Your task to perform on an android device: open app "Facebook Messenger" (install if not already installed) and enter user name: "divorce@inbox.com" and password: "caviar" Image 0: 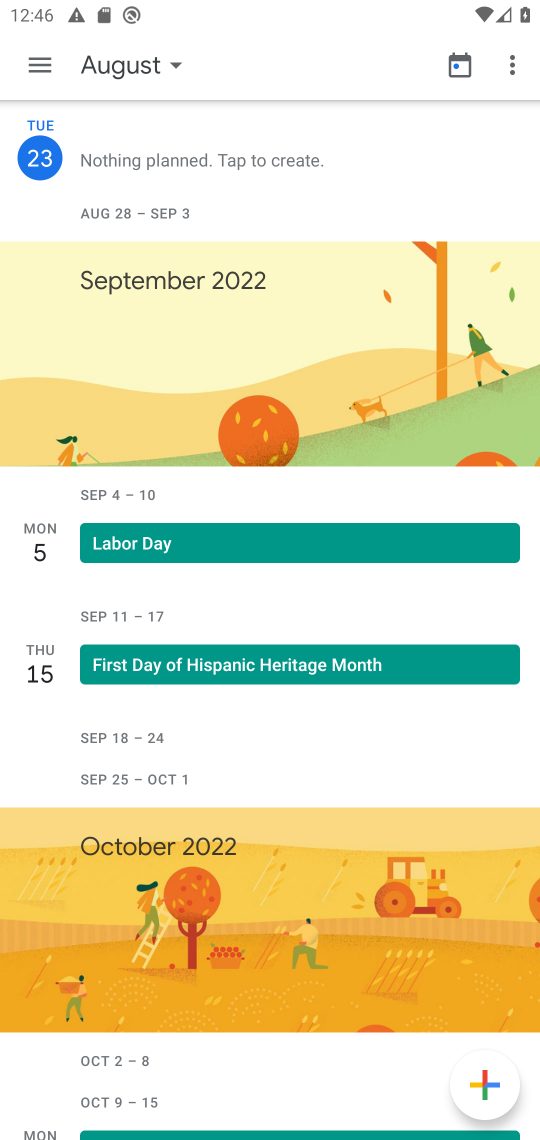
Step 0: press home button
Your task to perform on an android device: open app "Facebook Messenger" (install if not already installed) and enter user name: "divorce@inbox.com" and password: "caviar" Image 1: 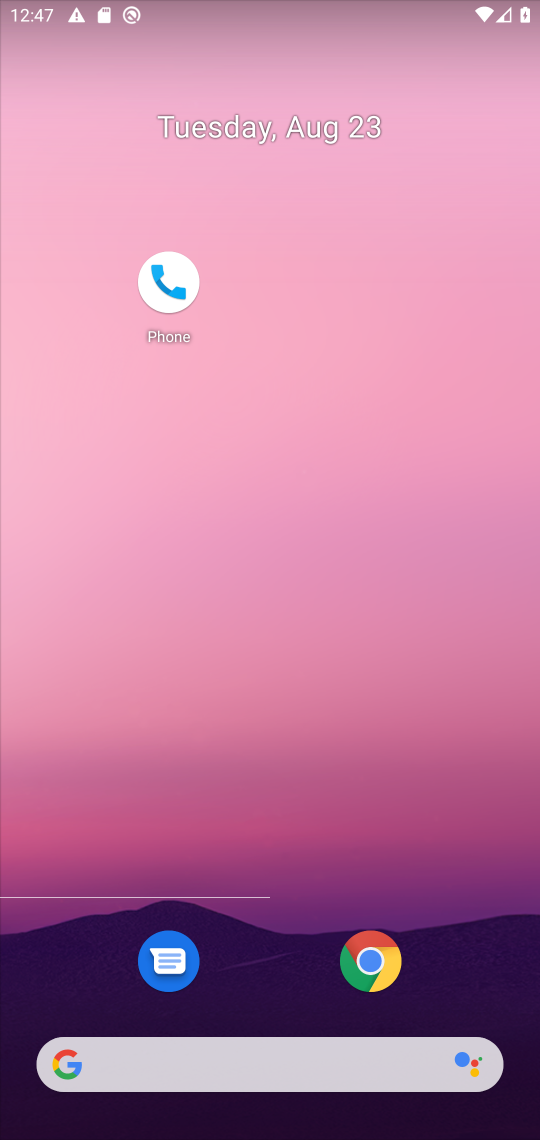
Step 1: drag from (323, 554) to (357, 85)
Your task to perform on an android device: open app "Facebook Messenger" (install if not already installed) and enter user name: "divorce@inbox.com" and password: "caviar" Image 2: 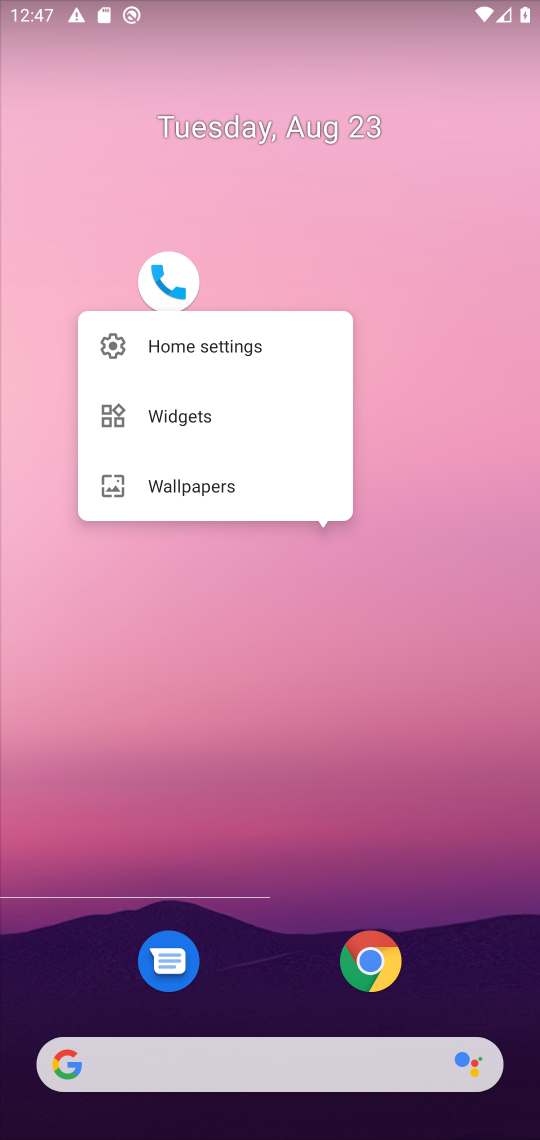
Step 2: click (273, 754)
Your task to perform on an android device: open app "Facebook Messenger" (install if not already installed) and enter user name: "divorce@inbox.com" and password: "caviar" Image 3: 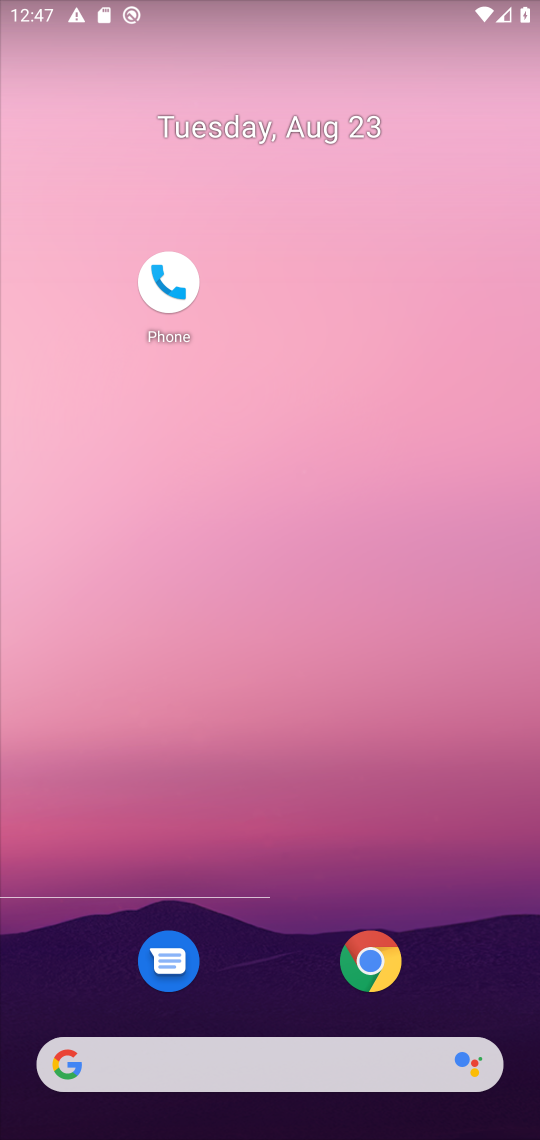
Step 3: drag from (303, 1007) to (309, 97)
Your task to perform on an android device: open app "Facebook Messenger" (install if not already installed) and enter user name: "divorce@inbox.com" and password: "caviar" Image 4: 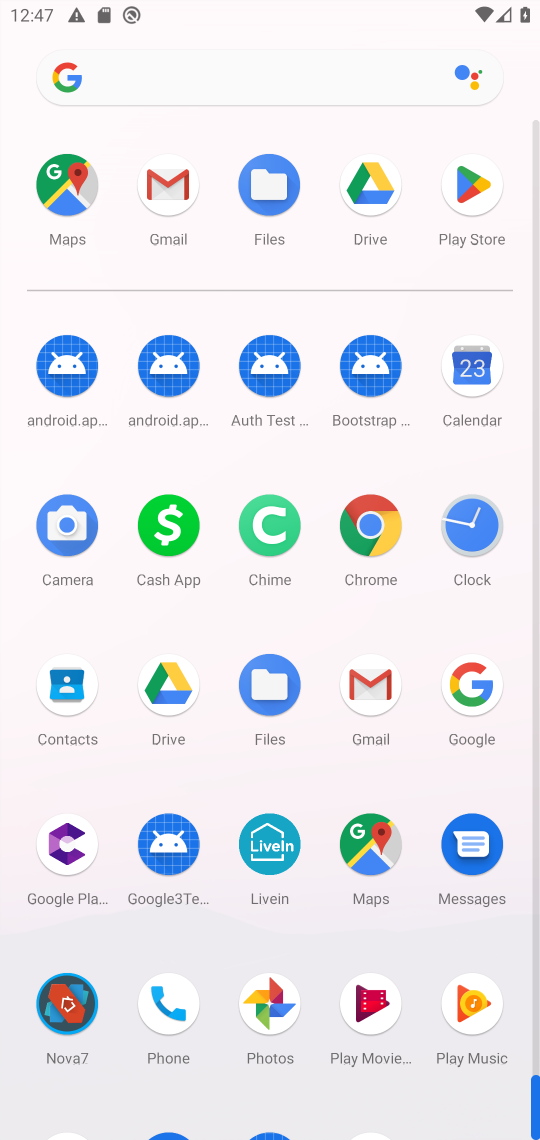
Step 4: click (472, 218)
Your task to perform on an android device: open app "Facebook Messenger" (install if not already installed) and enter user name: "divorce@inbox.com" and password: "caviar" Image 5: 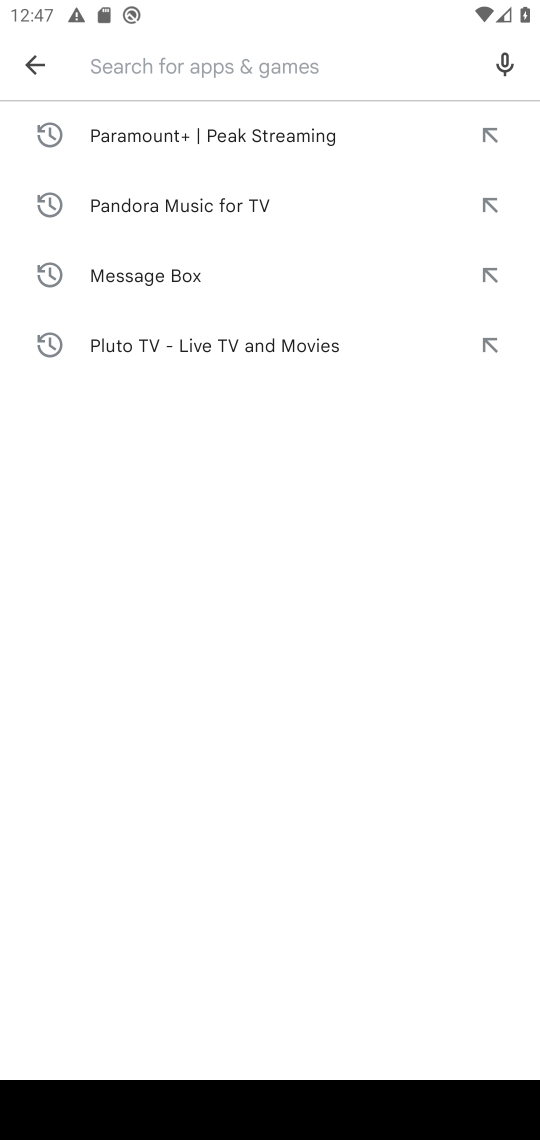
Step 5: type "facebook"
Your task to perform on an android device: open app "Facebook Messenger" (install if not already installed) and enter user name: "divorce@inbox.com" and password: "caviar" Image 6: 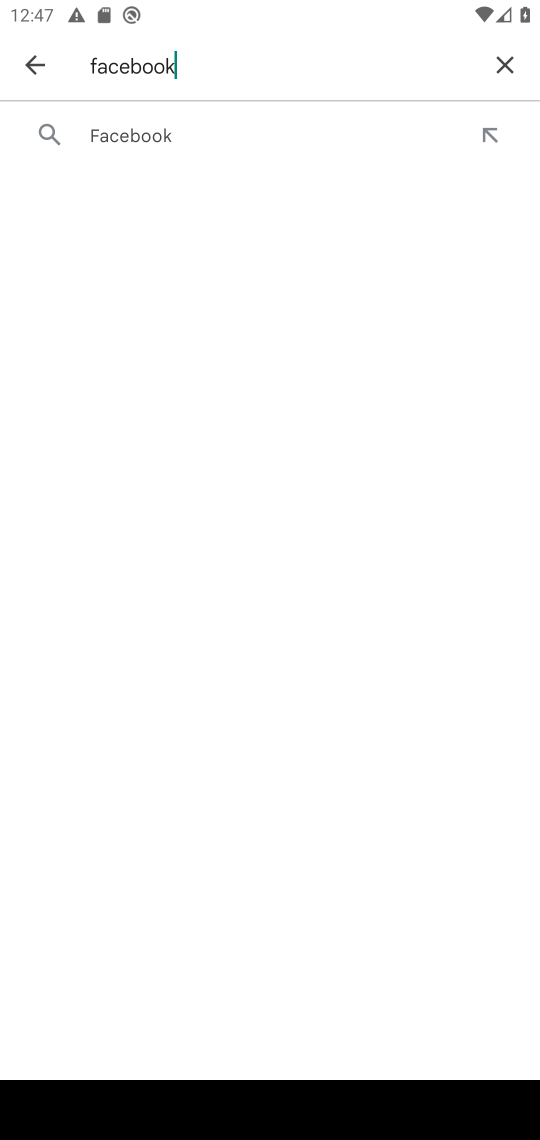
Step 6: click (288, 161)
Your task to perform on an android device: open app "Facebook Messenger" (install if not already installed) and enter user name: "divorce@inbox.com" and password: "caviar" Image 7: 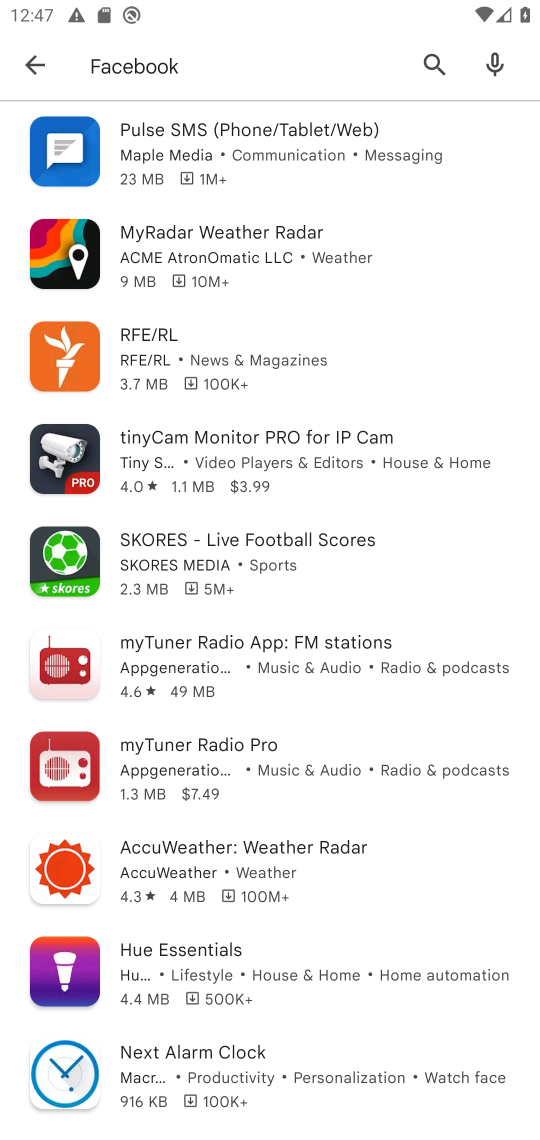
Step 7: task complete